Your task to perform on an android device: open app "TextNow: Call + Text Unlimited" (install if not already installed) Image 0: 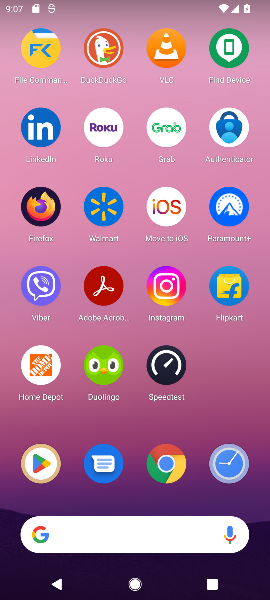
Step 0: click (38, 472)
Your task to perform on an android device: open app "TextNow: Call + Text Unlimited" (install if not already installed) Image 1: 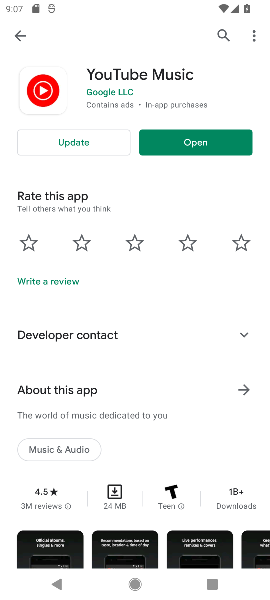
Step 1: click (223, 41)
Your task to perform on an android device: open app "TextNow: Call + Text Unlimited" (install if not already installed) Image 2: 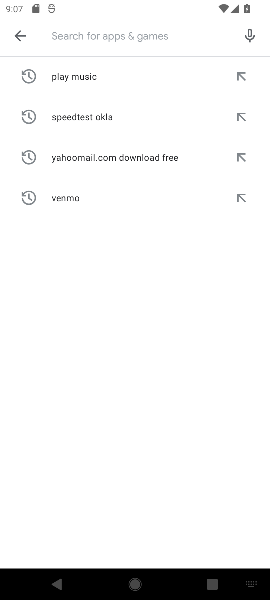
Step 2: type "text now"
Your task to perform on an android device: open app "TextNow: Call + Text Unlimited" (install if not already installed) Image 3: 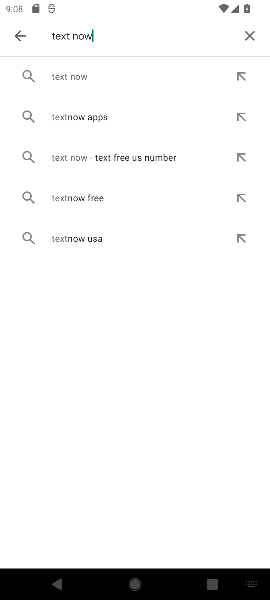
Step 3: click (97, 83)
Your task to perform on an android device: open app "TextNow: Call + Text Unlimited" (install if not already installed) Image 4: 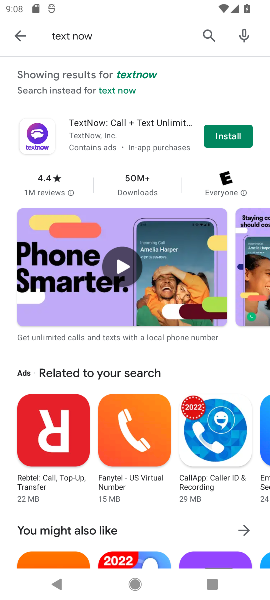
Step 4: click (227, 133)
Your task to perform on an android device: open app "TextNow: Call + Text Unlimited" (install if not already installed) Image 5: 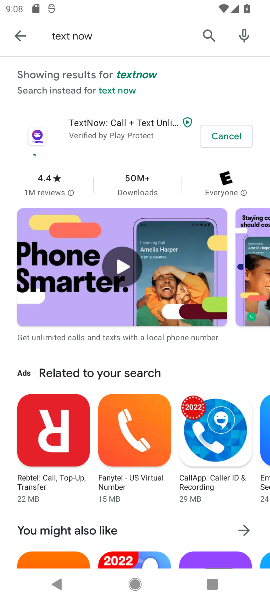
Step 5: task complete